Your task to perform on an android device: Open ESPN.com Image 0: 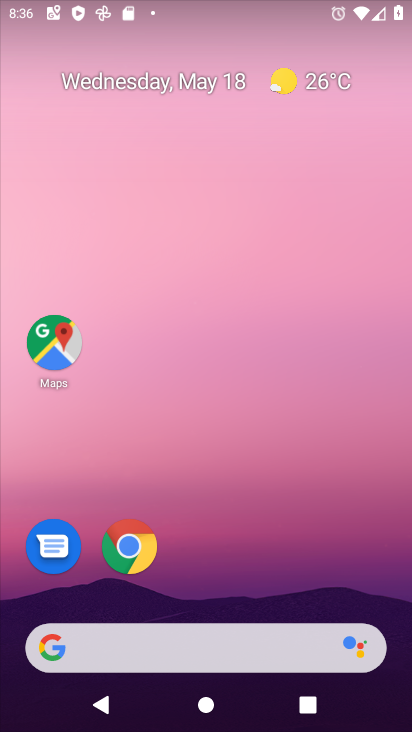
Step 0: drag from (395, 635) to (315, 56)
Your task to perform on an android device: Open ESPN.com Image 1: 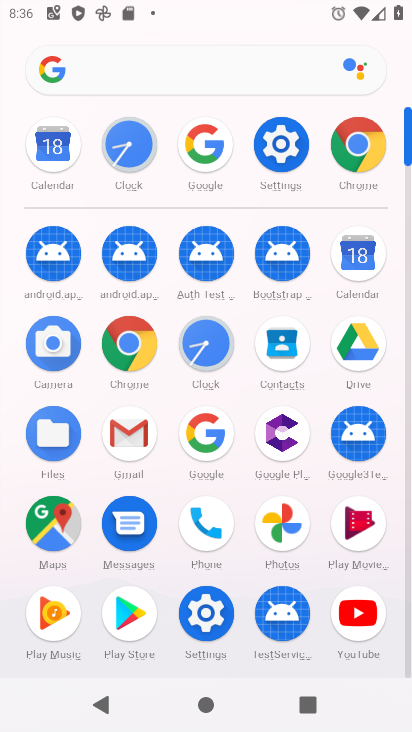
Step 1: click (141, 347)
Your task to perform on an android device: Open ESPN.com Image 2: 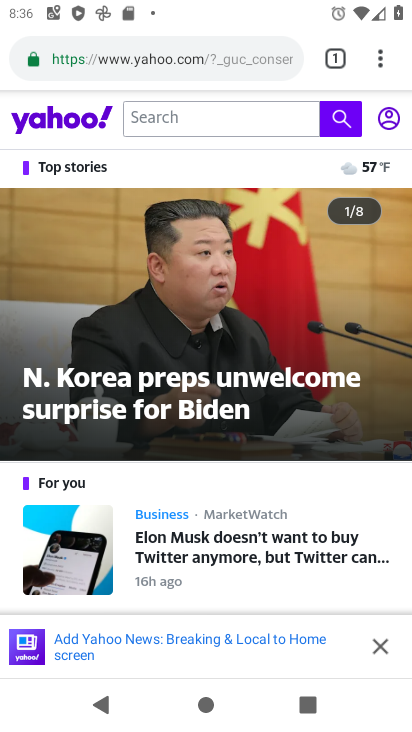
Step 2: press back button
Your task to perform on an android device: Open ESPN.com Image 3: 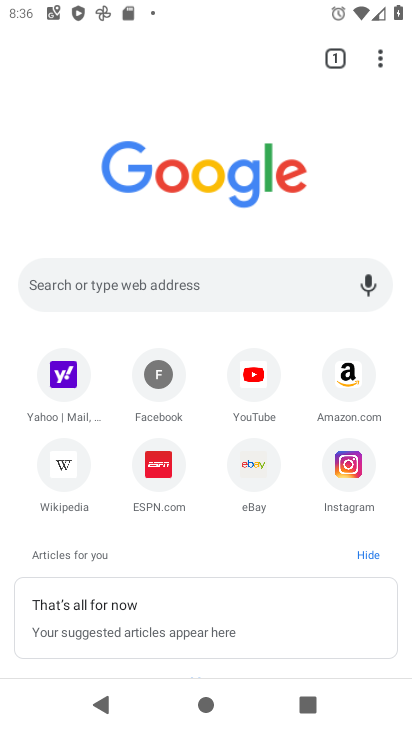
Step 3: click (155, 473)
Your task to perform on an android device: Open ESPN.com Image 4: 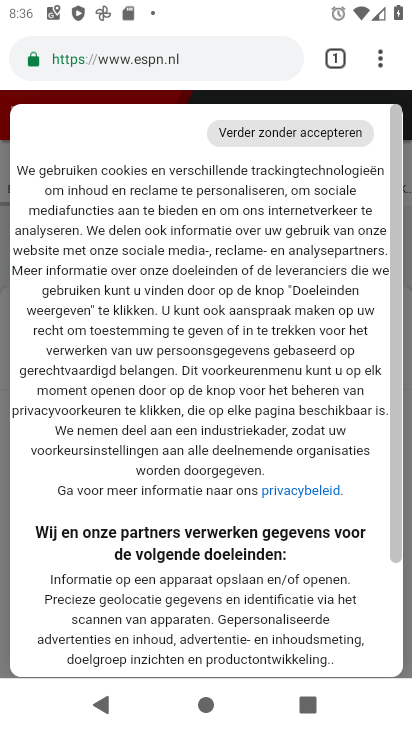
Step 4: task complete